Your task to perform on an android device: Open Google Maps and go to "Timeline" Image 0: 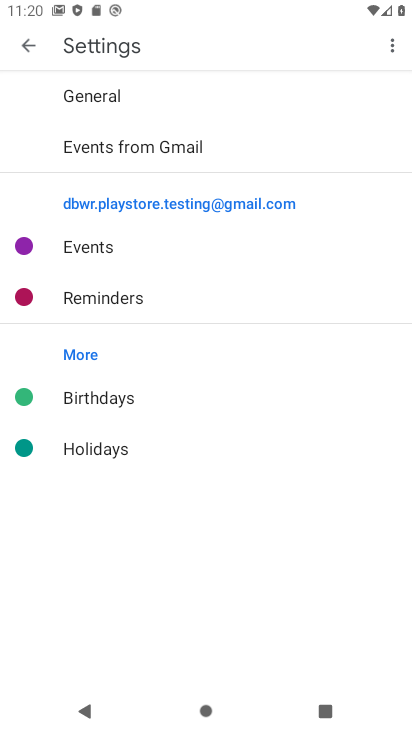
Step 0: press home button
Your task to perform on an android device: Open Google Maps and go to "Timeline" Image 1: 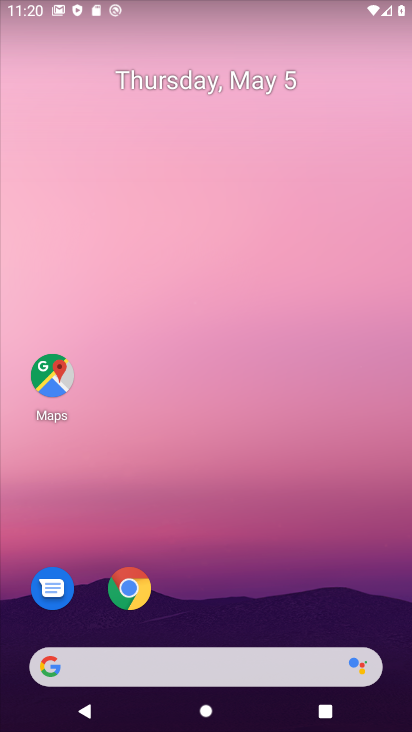
Step 1: drag from (193, 670) to (365, 92)
Your task to perform on an android device: Open Google Maps and go to "Timeline" Image 2: 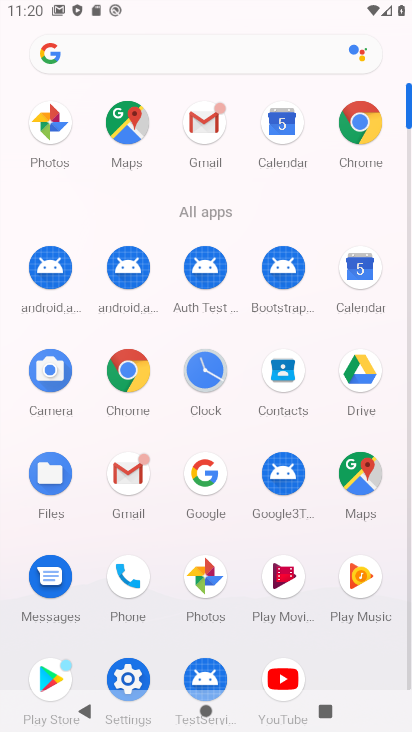
Step 2: click (121, 127)
Your task to perform on an android device: Open Google Maps and go to "Timeline" Image 3: 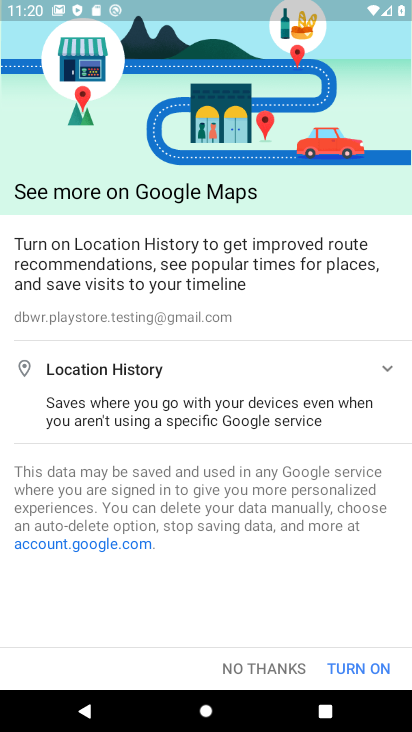
Step 3: click (250, 664)
Your task to perform on an android device: Open Google Maps and go to "Timeline" Image 4: 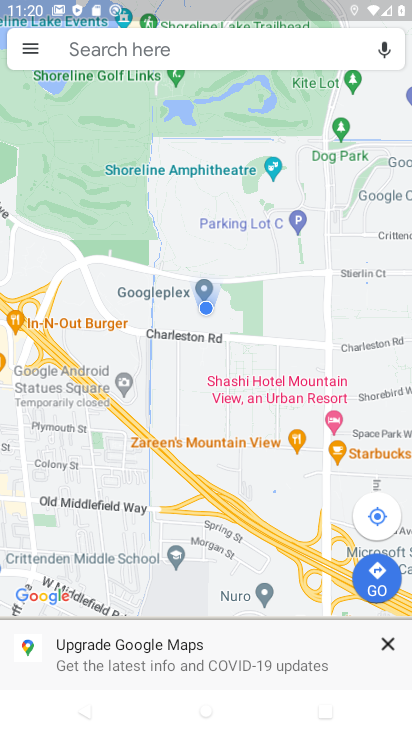
Step 4: click (29, 46)
Your task to perform on an android device: Open Google Maps and go to "Timeline" Image 5: 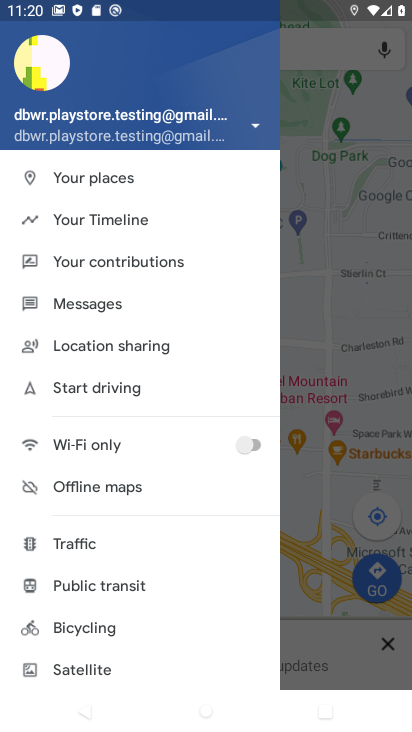
Step 5: click (126, 221)
Your task to perform on an android device: Open Google Maps and go to "Timeline" Image 6: 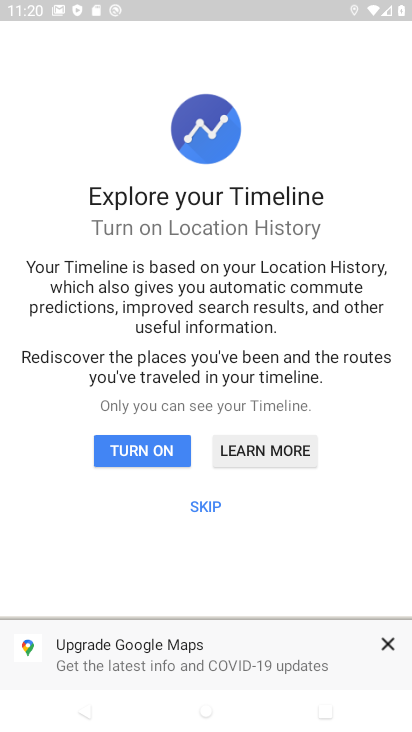
Step 6: click (205, 503)
Your task to perform on an android device: Open Google Maps and go to "Timeline" Image 7: 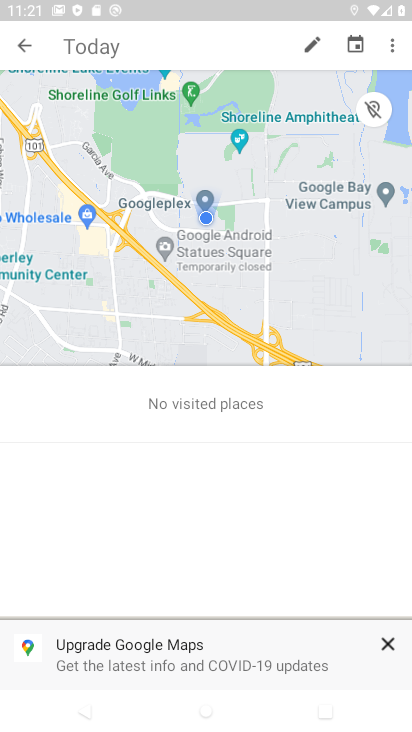
Step 7: task complete